Your task to perform on an android device: all mails in gmail Image 0: 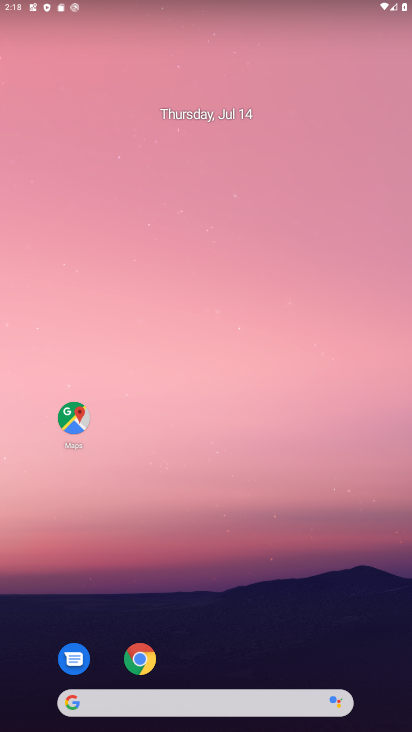
Step 0: press home button
Your task to perform on an android device: all mails in gmail Image 1: 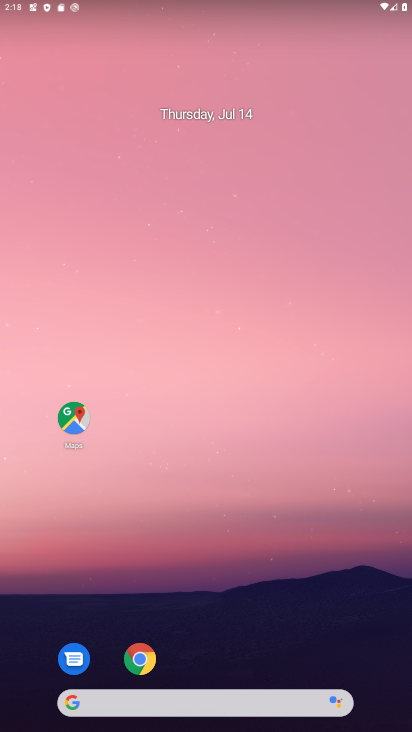
Step 1: drag from (222, 656) to (247, 99)
Your task to perform on an android device: all mails in gmail Image 2: 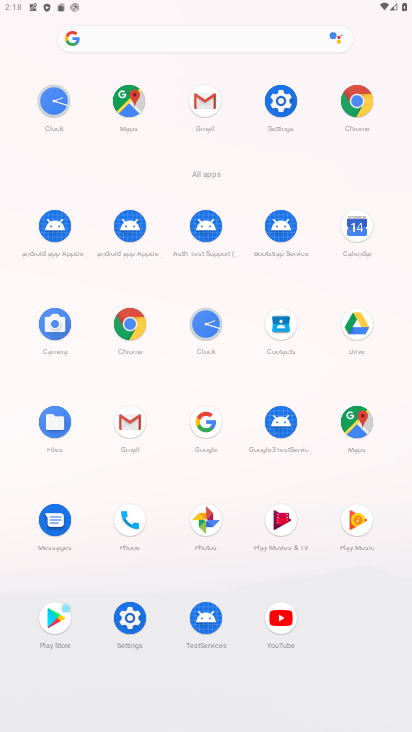
Step 2: click (208, 96)
Your task to perform on an android device: all mails in gmail Image 3: 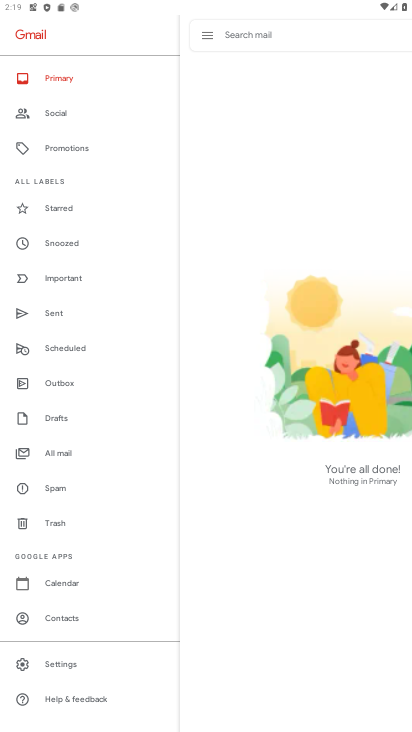
Step 3: click (56, 453)
Your task to perform on an android device: all mails in gmail Image 4: 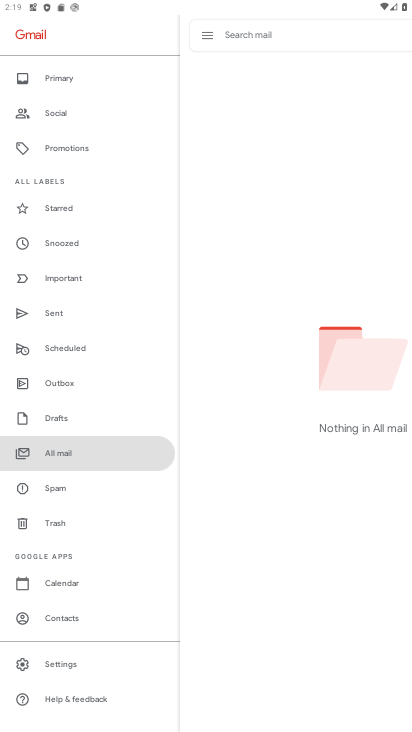
Step 4: task complete